Your task to perform on an android device: Go to battery settings Image 0: 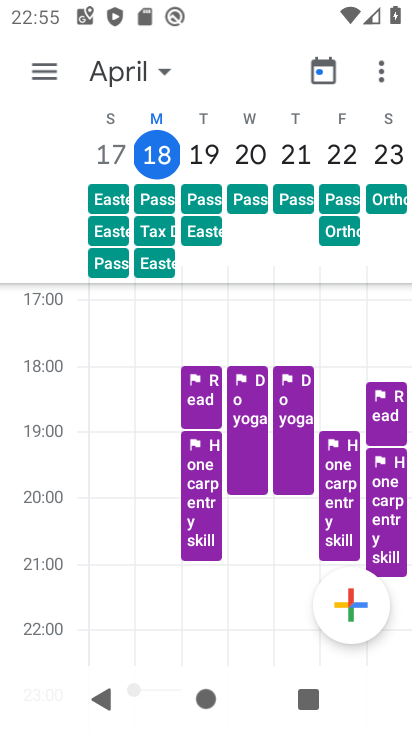
Step 0: press home button
Your task to perform on an android device: Go to battery settings Image 1: 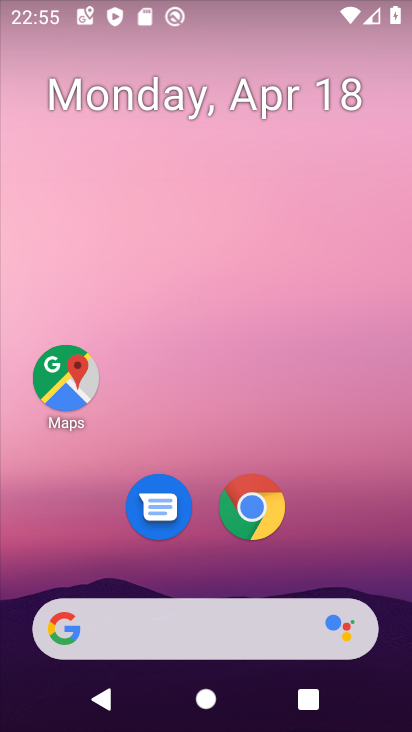
Step 1: drag from (317, 504) to (319, 83)
Your task to perform on an android device: Go to battery settings Image 2: 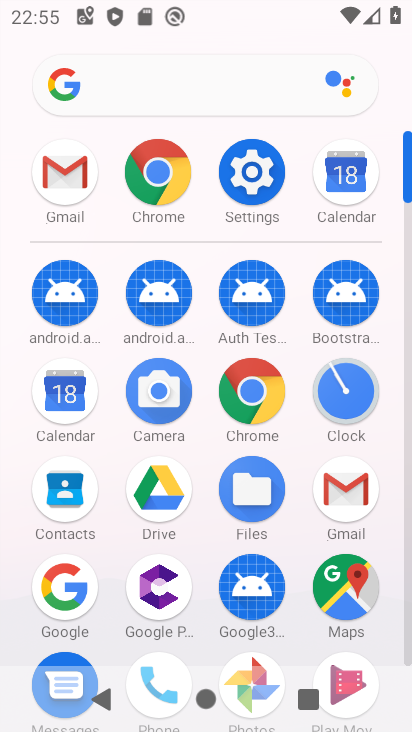
Step 2: click (271, 166)
Your task to perform on an android device: Go to battery settings Image 3: 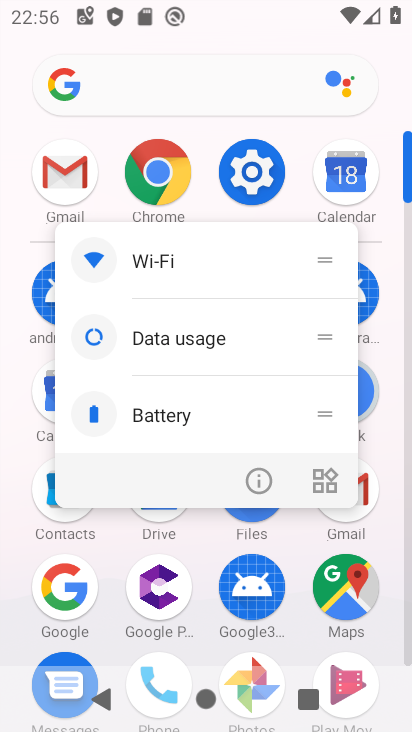
Step 3: click (275, 166)
Your task to perform on an android device: Go to battery settings Image 4: 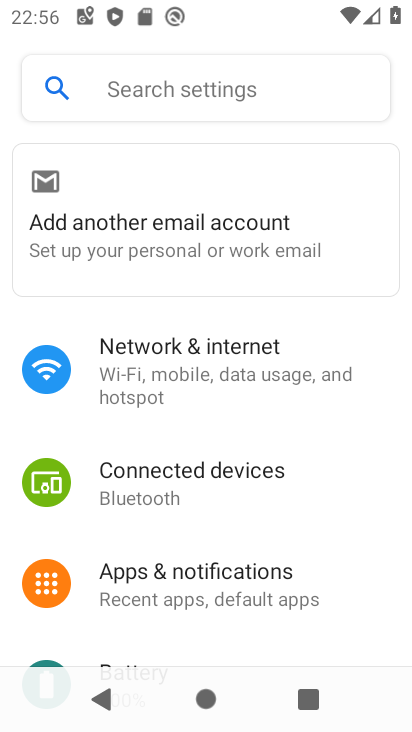
Step 4: drag from (234, 545) to (253, 207)
Your task to perform on an android device: Go to battery settings Image 5: 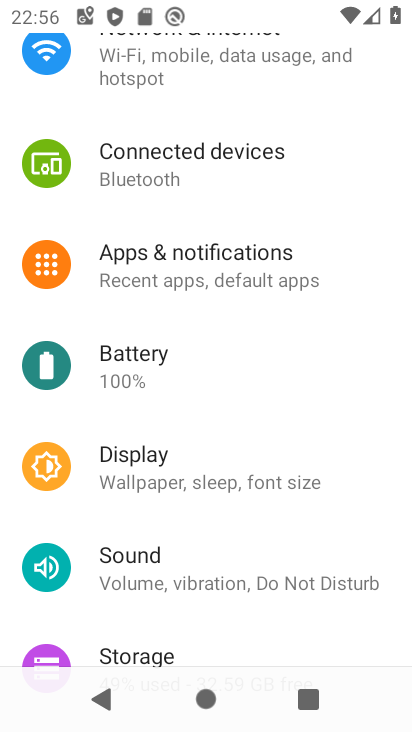
Step 5: click (196, 359)
Your task to perform on an android device: Go to battery settings Image 6: 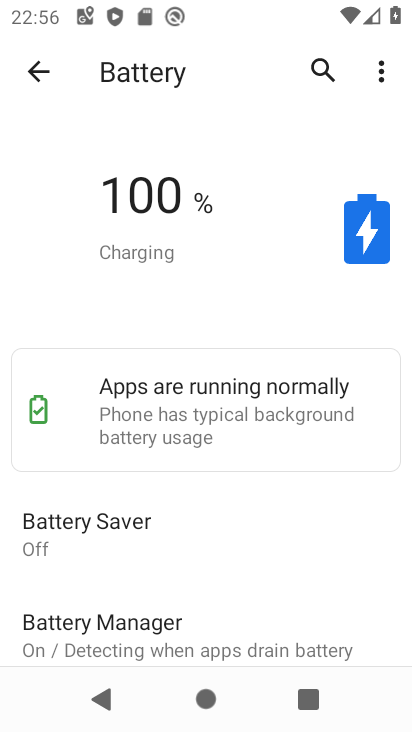
Step 6: task complete